Your task to perform on an android device: Go to network settings Image 0: 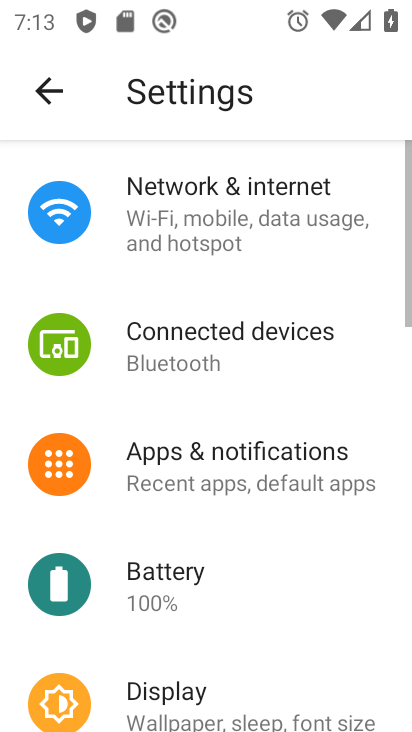
Step 0: press home button
Your task to perform on an android device: Go to network settings Image 1: 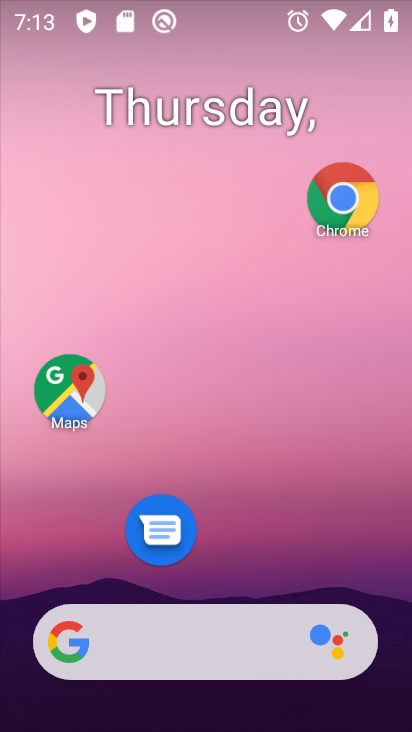
Step 1: drag from (311, 681) to (207, 148)
Your task to perform on an android device: Go to network settings Image 2: 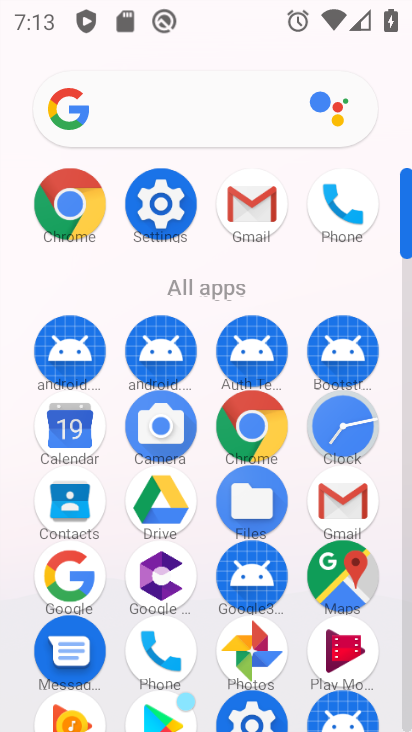
Step 2: click (153, 215)
Your task to perform on an android device: Go to network settings Image 3: 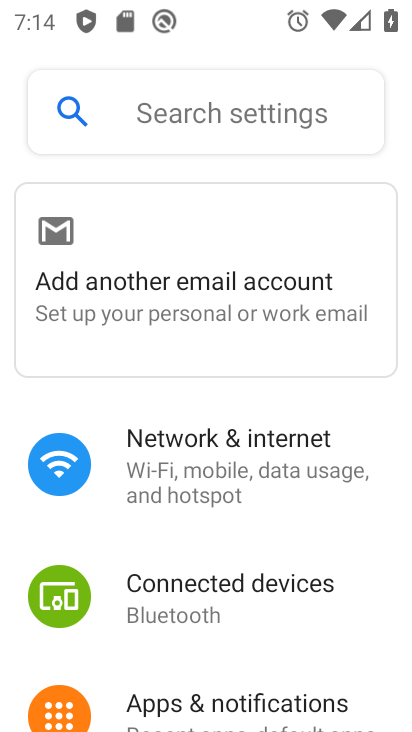
Step 3: click (231, 477)
Your task to perform on an android device: Go to network settings Image 4: 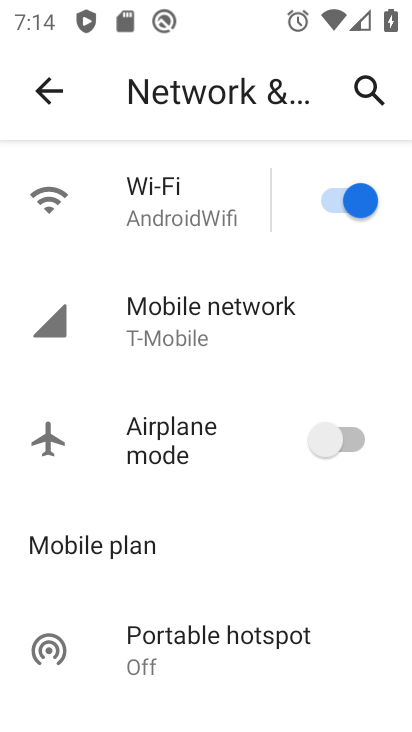
Step 4: task complete